Your task to perform on an android device: open sync settings in chrome Image 0: 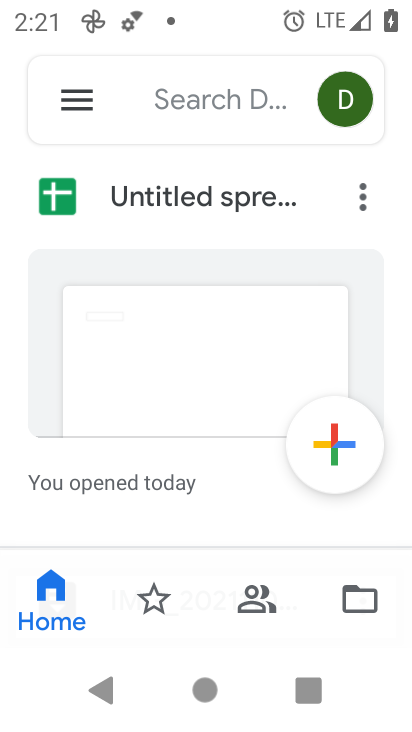
Step 0: press home button
Your task to perform on an android device: open sync settings in chrome Image 1: 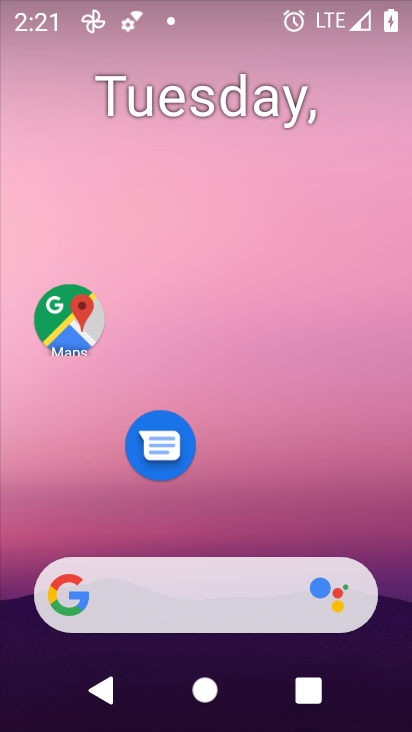
Step 1: drag from (273, 496) to (193, 18)
Your task to perform on an android device: open sync settings in chrome Image 2: 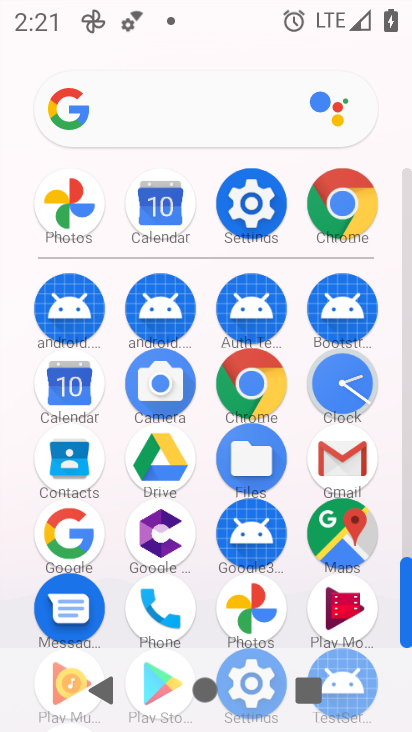
Step 2: click (350, 196)
Your task to perform on an android device: open sync settings in chrome Image 3: 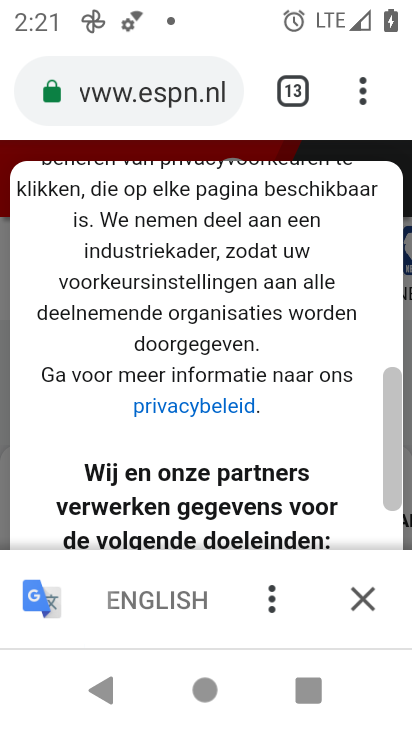
Step 3: click (361, 92)
Your task to perform on an android device: open sync settings in chrome Image 4: 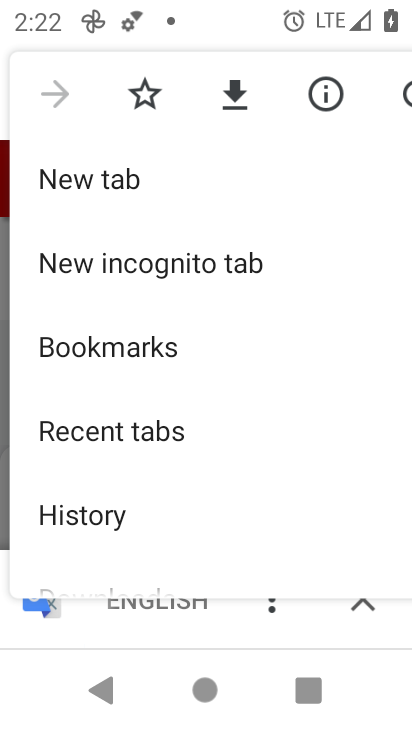
Step 4: drag from (211, 464) to (166, 137)
Your task to perform on an android device: open sync settings in chrome Image 5: 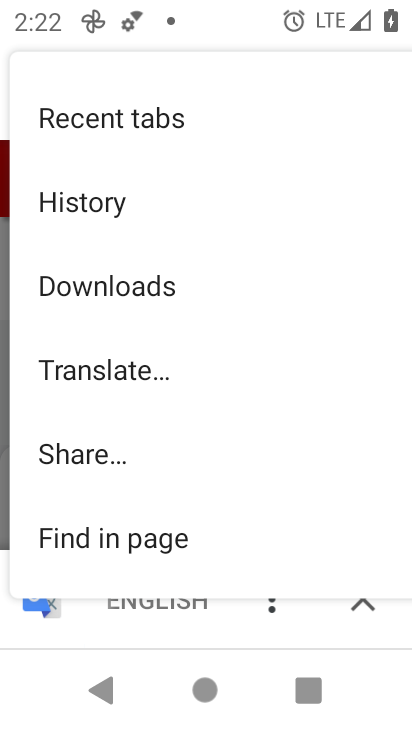
Step 5: drag from (219, 440) to (163, 211)
Your task to perform on an android device: open sync settings in chrome Image 6: 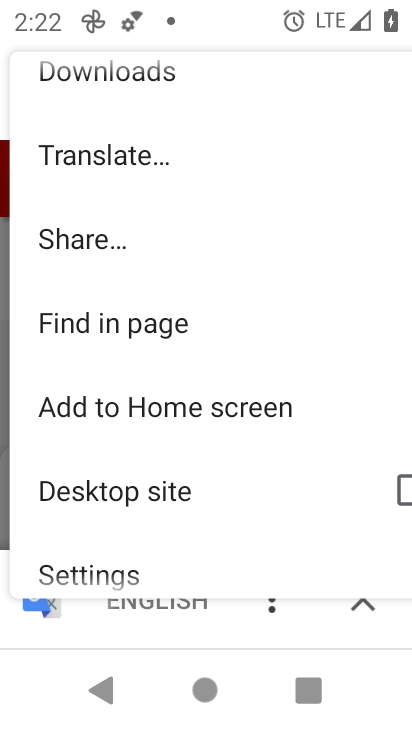
Step 6: drag from (225, 461) to (139, 80)
Your task to perform on an android device: open sync settings in chrome Image 7: 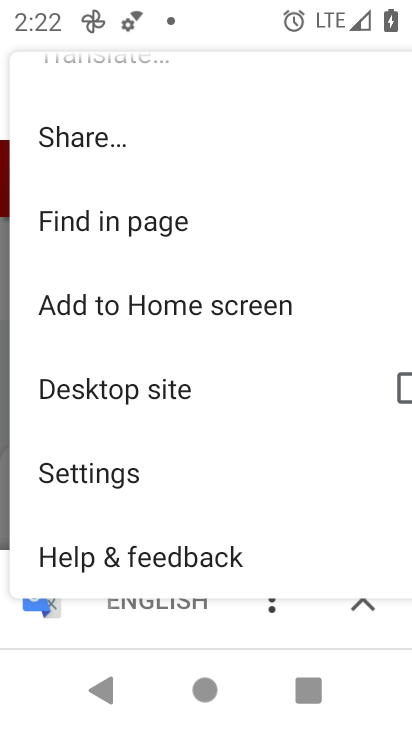
Step 7: click (99, 475)
Your task to perform on an android device: open sync settings in chrome Image 8: 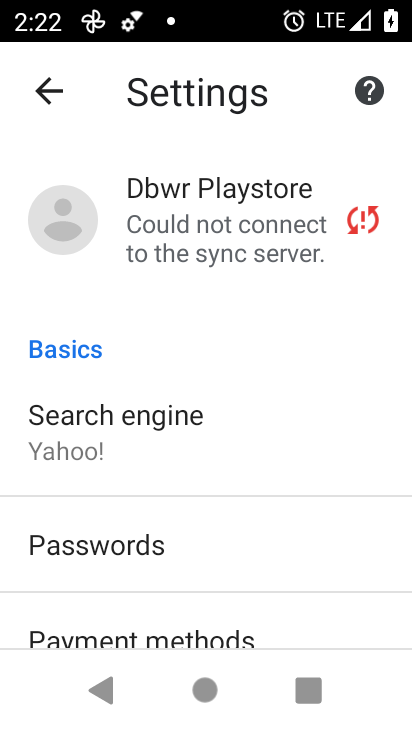
Step 8: click (220, 201)
Your task to perform on an android device: open sync settings in chrome Image 9: 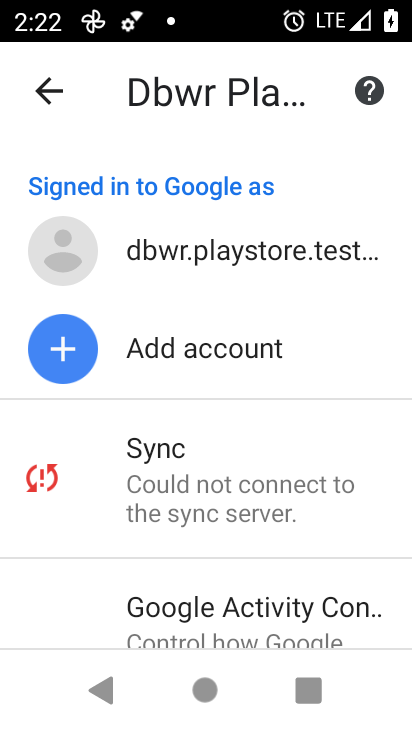
Step 9: click (192, 458)
Your task to perform on an android device: open sync settings in chrome Image 10: 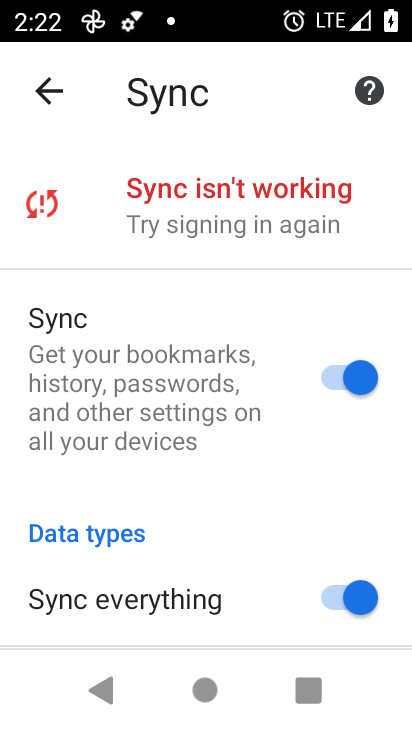
Step 10: task complete